Your task to perform on an android device: allow notifications from all sites in the chrome app Image 0: 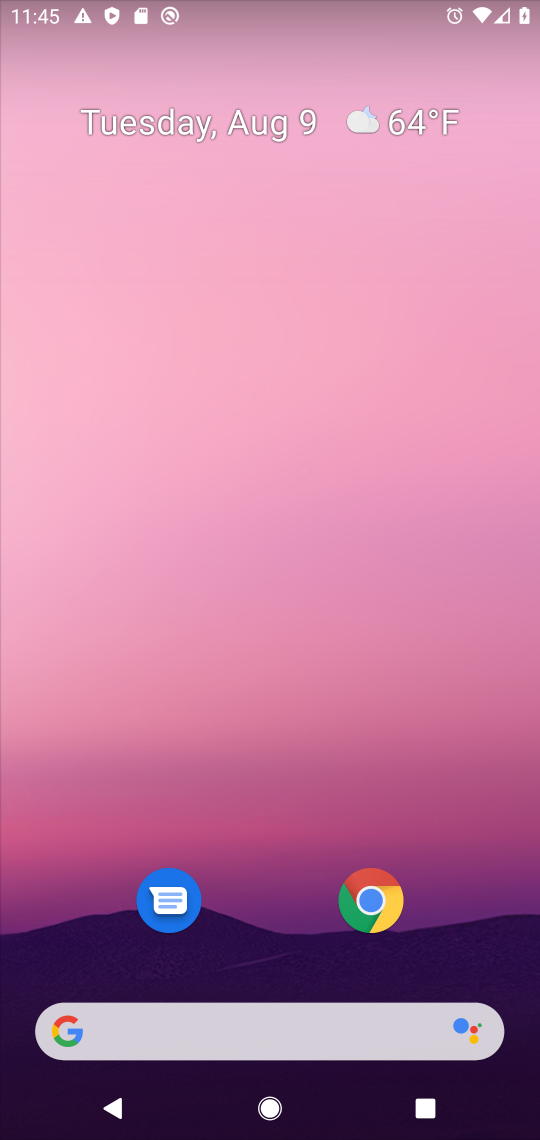
Step 0: click (385, 913)
Your task to perform on an android device: allow notifications from all sites in the chrome app Image 1: 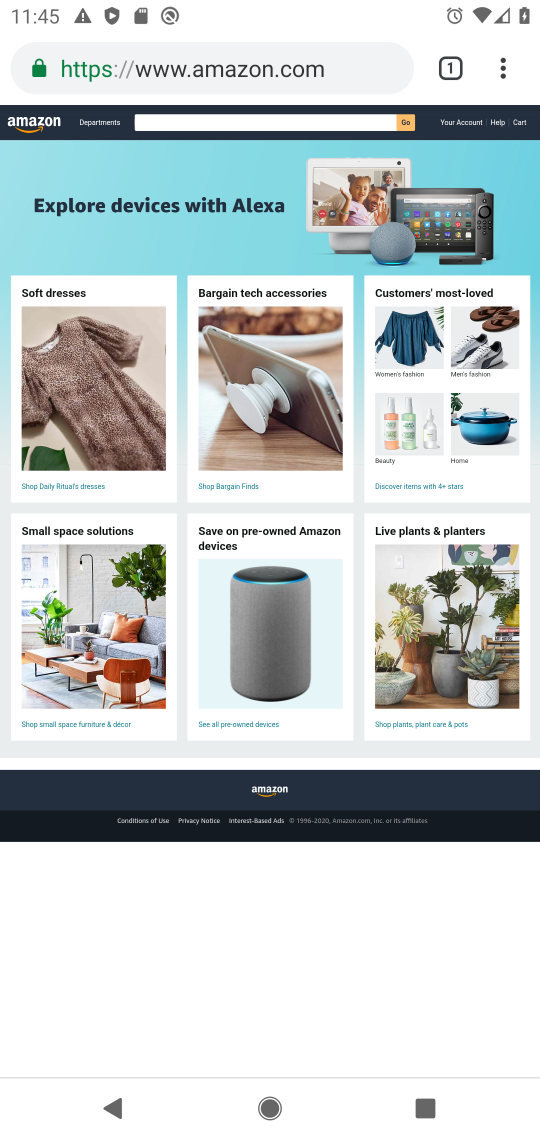
Step 1: click (500, 69)
Your task to perform on an android device: allow notifications from all sites in the chrome app Image 2: 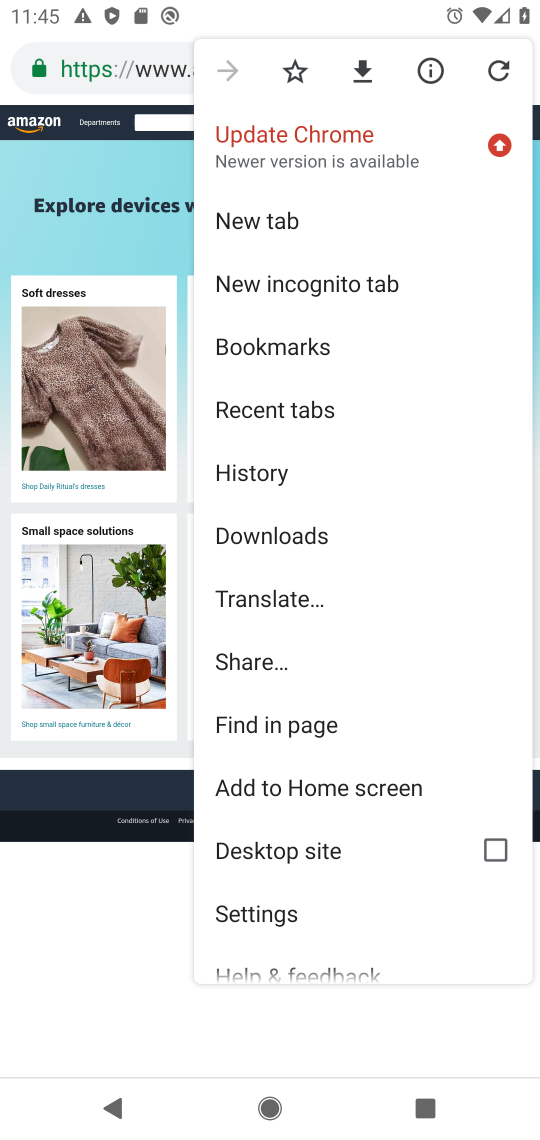
Step 2: click (350, 910)
Your task to perform on an android device: allow notifications from all sites in the chrome app Image 3: 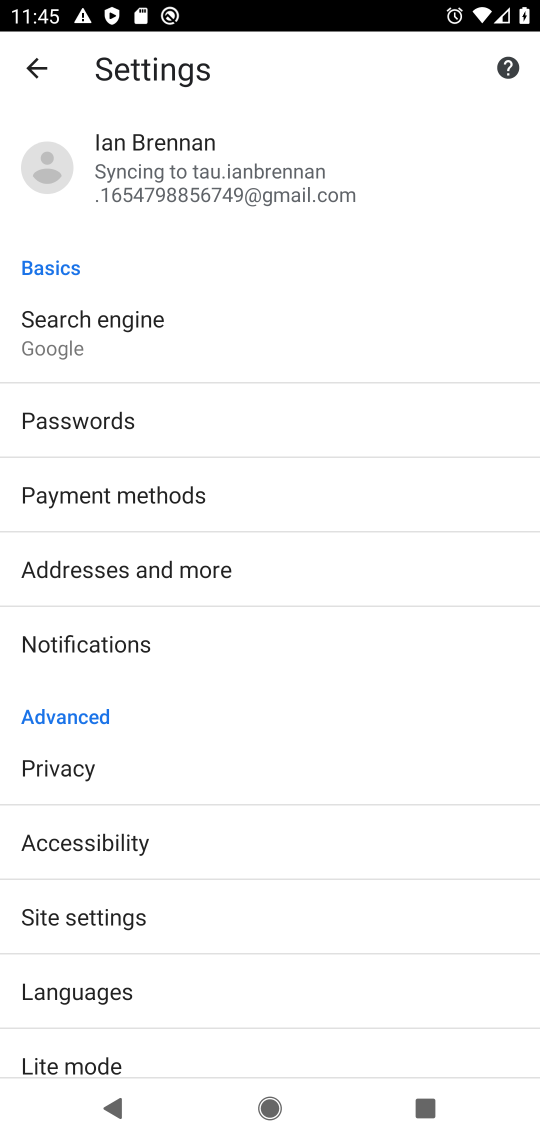
Step 3: click (288, 638)
Your task to perform on an android device: allow notifications from all sites in the chrome app Image 4: 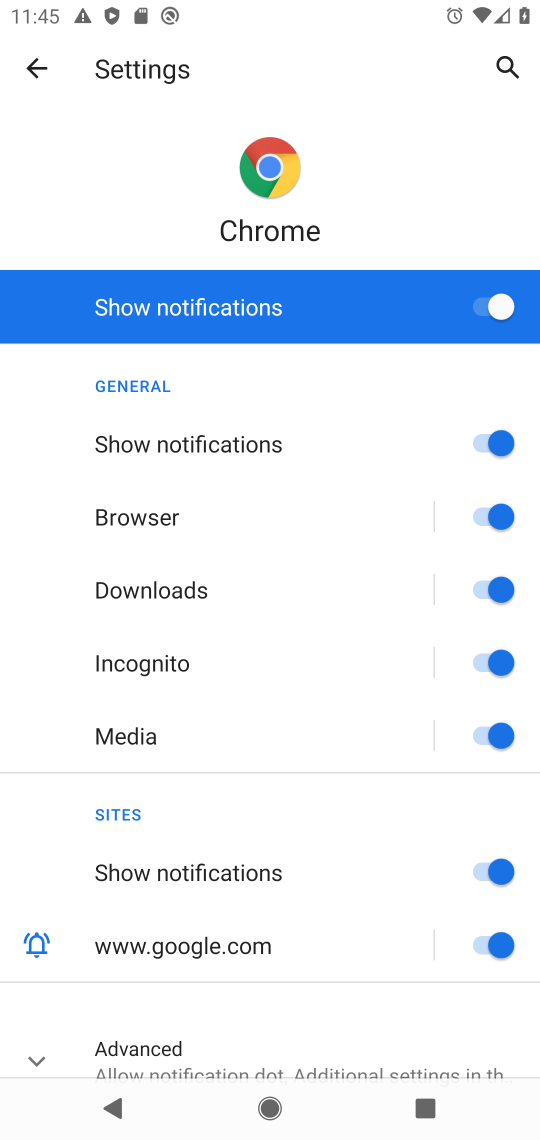
Step 4: task complete